Your task to perform on an android device: turn notification dots on Image 0: 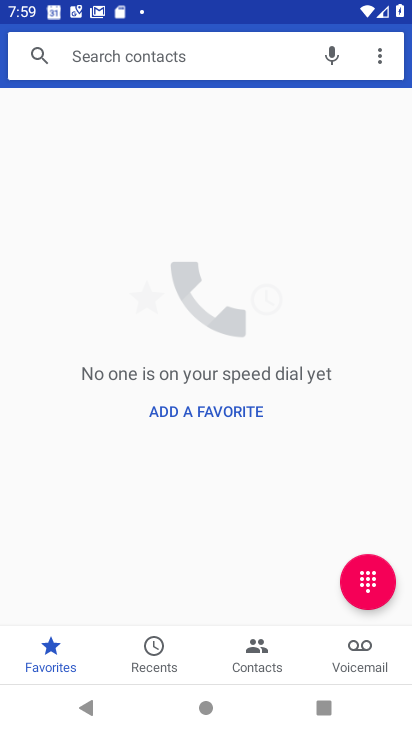
Step 0: drag from (217, 464) to (231, 217)
Your task to perform on an android device: turn notification dots on Image 1: 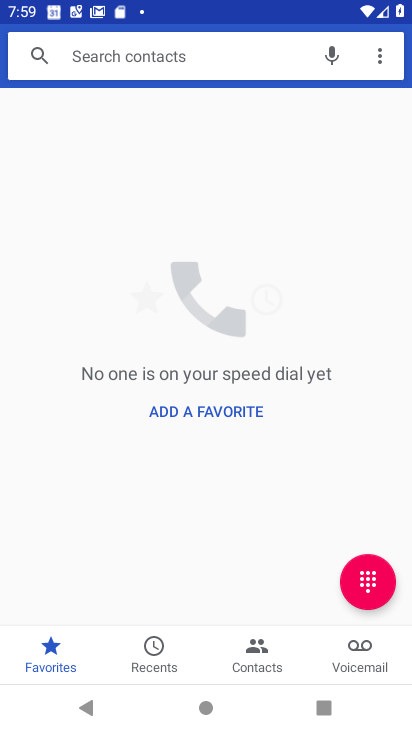
Step 1: press home button
Your task to perform on an android device: turn notification dots on Image 2: 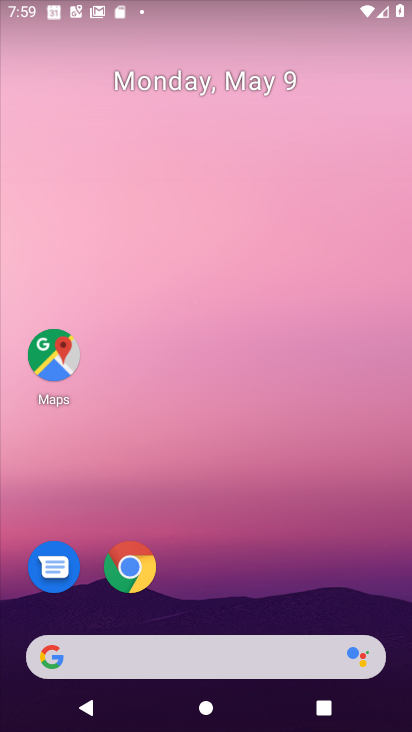
Step 2: drag from (209, 633) to (291, 97)
Your task to perform on an android device: turn notification dots on Image 3: 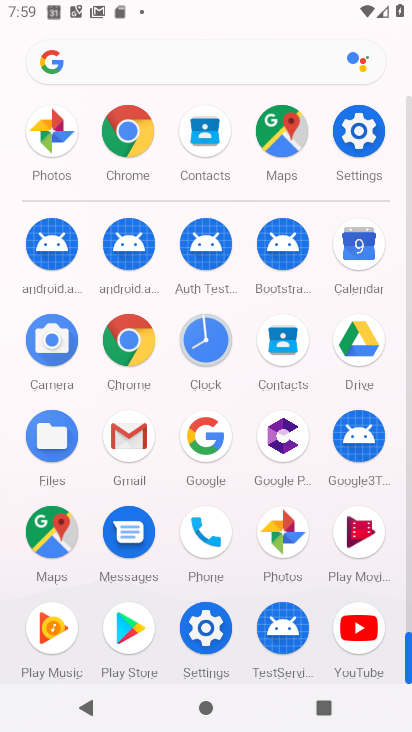
Step 3: click (357, 126)
Your task to perform on an android device: turn notification dots on Image 4: 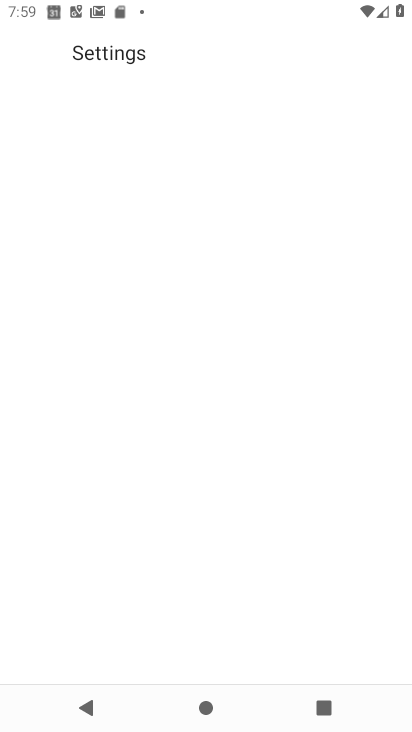
Step 4: click (357, 126)
Your task to perform on an android device: turn notification dots on Image 5: 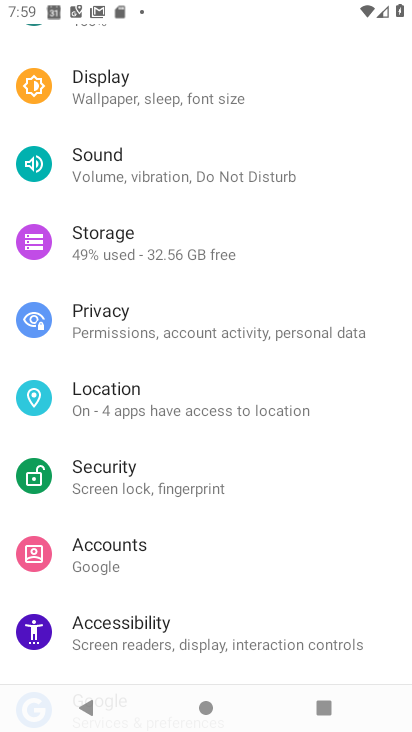
Step 5: drag from (183, 231) to (253, 654)
Your task to perform on an android device: turn notification dots on Image 6: 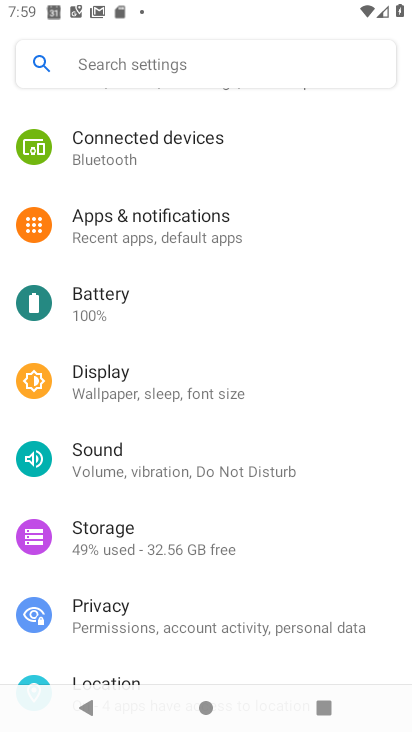
Step 6: click (161, 224)
Your task to perform on an android device: turn notification dots on Image 7: 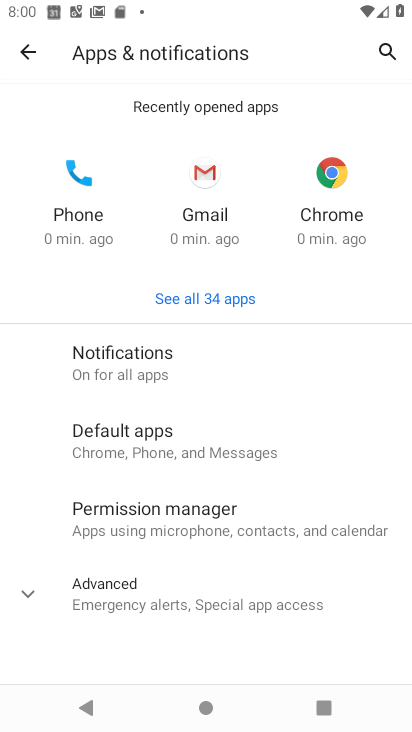
Step 7: click (159, 374)
Your task to perform on an android device: turn notification dots on Image 8: 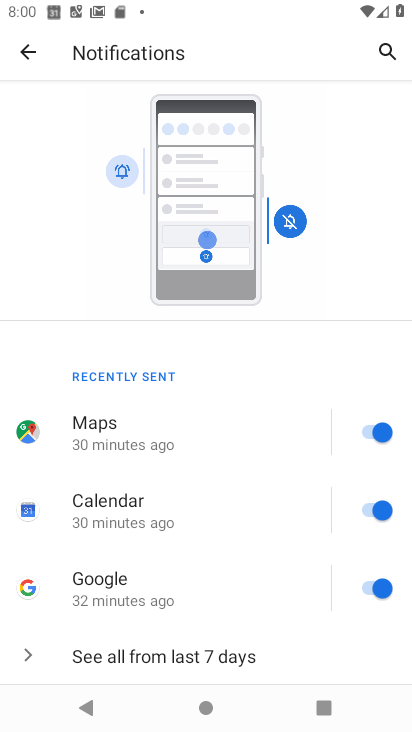
Step 8: drag from (278, 565) to (322, 220)
Your task to perform on an android device: turn notification dots on Image 9: 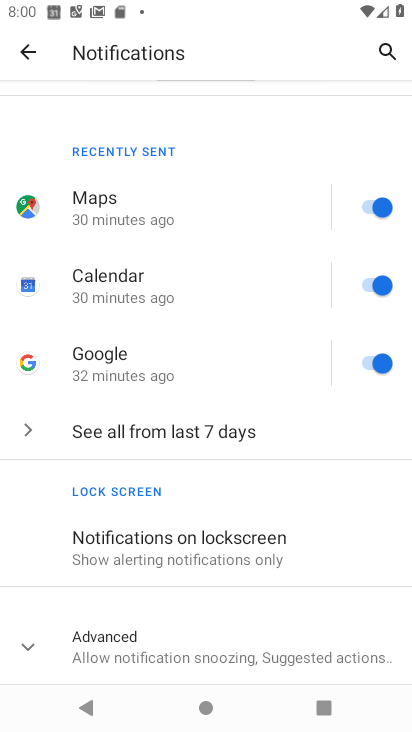
Step 9: click (204, 658)
Your task to perform on an android device: turn notification dots on Image 10: 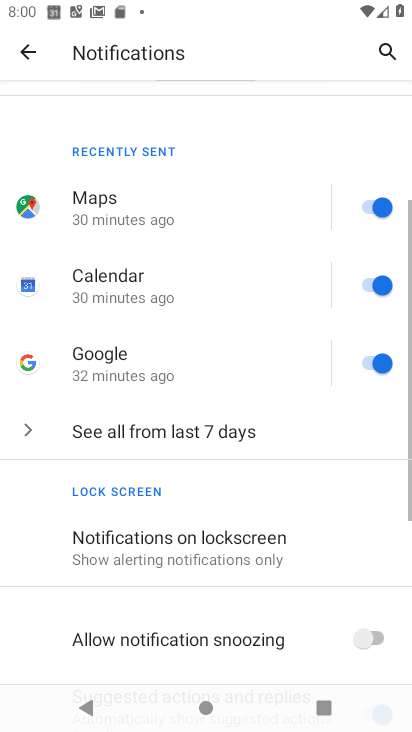
Step 10: drag from (210, 628) to (332, 152)
Your task to perform on an android device: turn notification dots on Image 11: 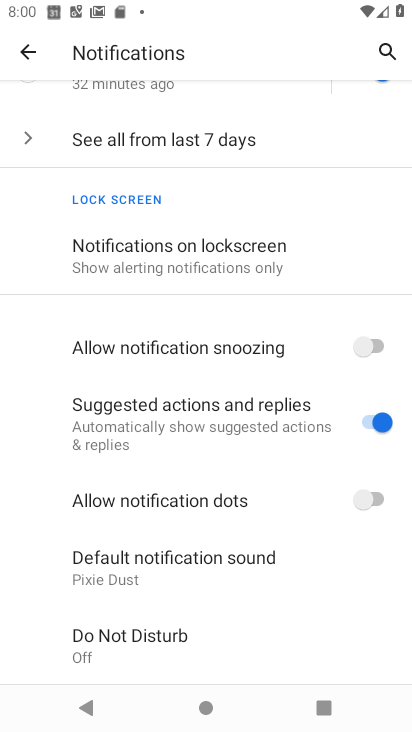
Step 11: click (354, 487)
Your task to perform on an android device: turn notification dots on Image 12: 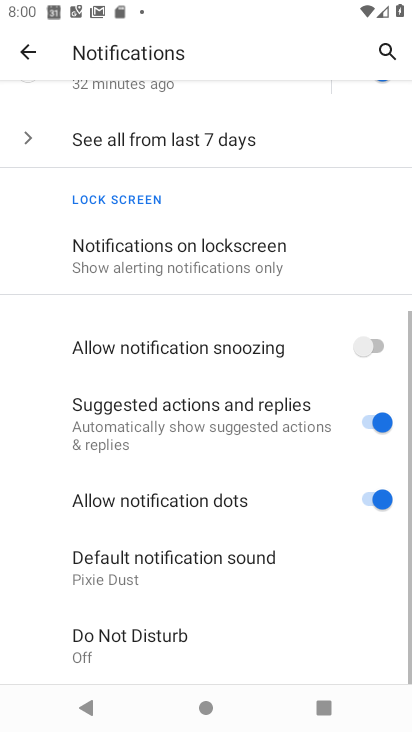
Step 12: task complete